Your task to perform on an android device: delete browsing data in the chrome app Image 0: 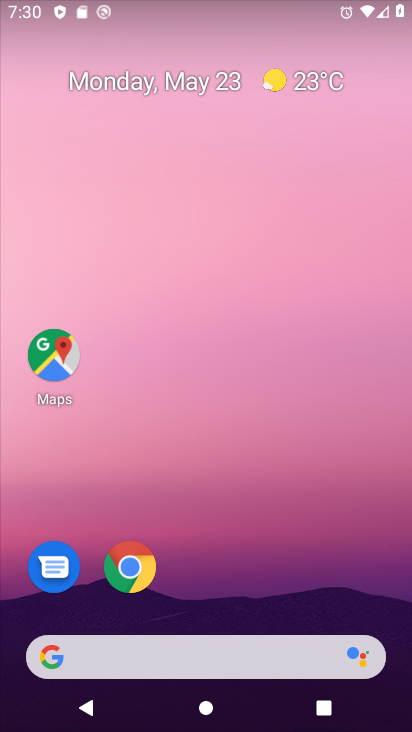
Step 0: drag from (218, 565) to (224, 282)
Your task to perform on an android device: delete browsing data in the chrome app Image 1: 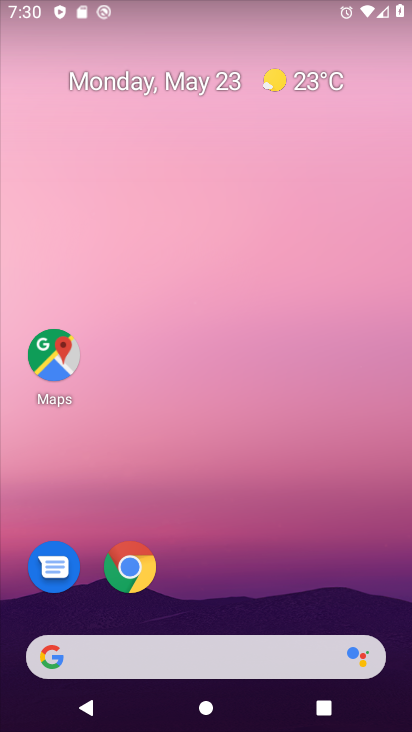
Step 1: drag from (221, 578) to (276, 155)
Your task to perform on an android device: delete browsing data in the chrome app Image 2: 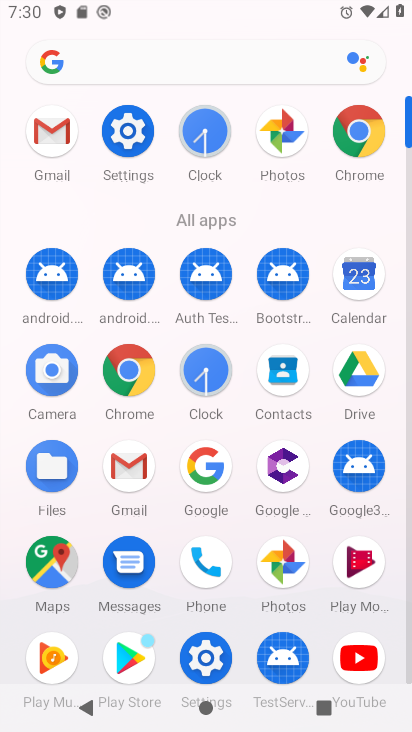
Step 2: click (337, 126)
Your task to perform on an android device: delete browsing data in the chrome app Image 3: 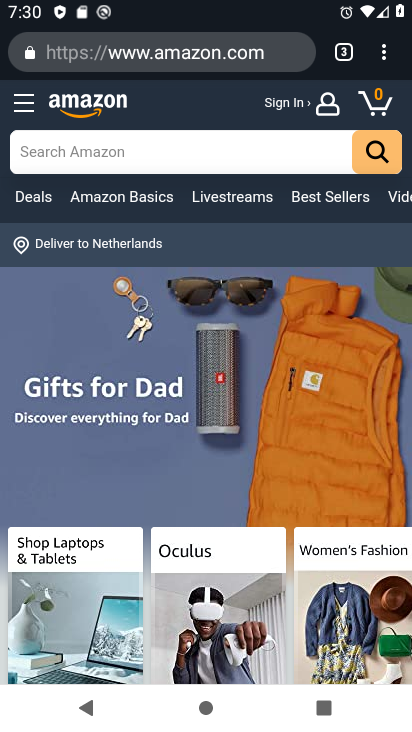
Step 3: click (380, 47)
Your task to perform on an android device: delete browsing data in the chrome app Image 4: 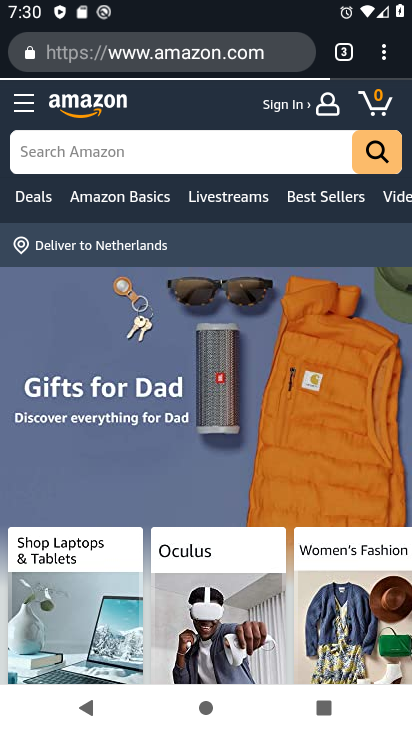
Step 4: click (391, 47)
Your task to perform on an android device: delete browsing data in the chrome app Image 5: 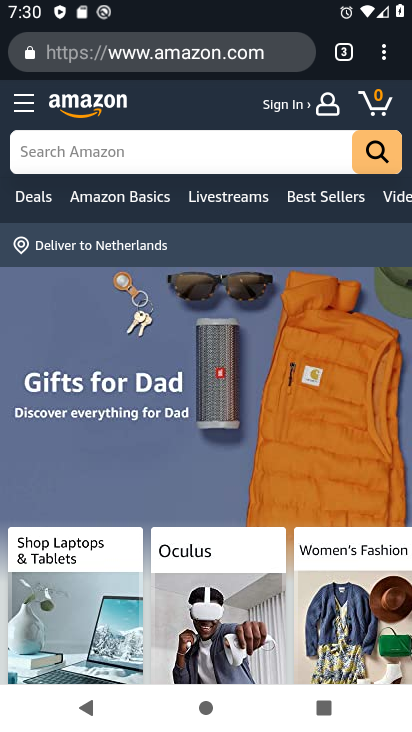
Step 5: click (389, 57)
Your task to perform on an android device: delete browsing data in the chrome app Image 6: 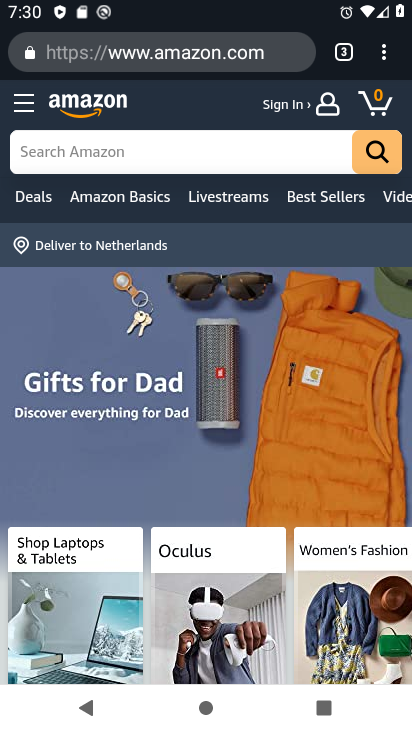
Step 6: click (389, 57)
Your task to perform on an android device: delete browsing data in the chrome app Image 7: 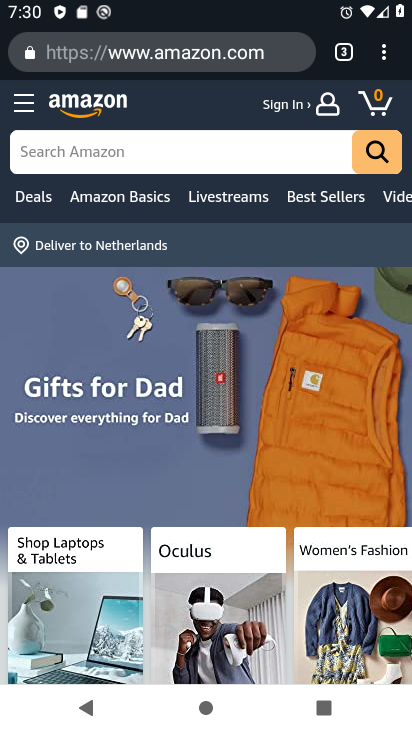
Step 7: click (382, 60)
Your task to perform on an android device: delete browsing data in the chrome app Image 8: 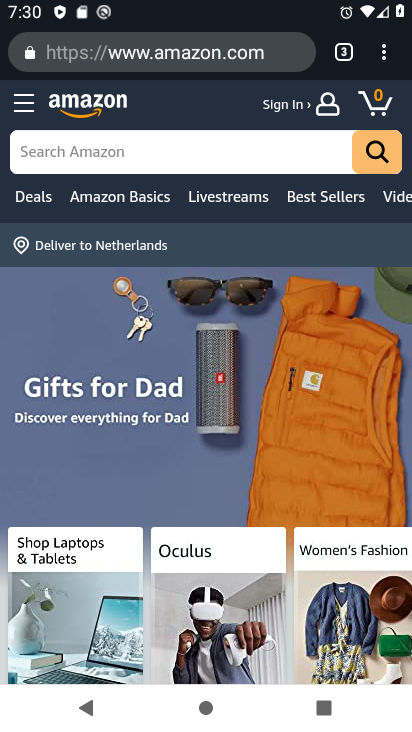
Step 8: click (382, 60)
Your task to perform on an android device: delete browsing data in the chrome app Image 9: 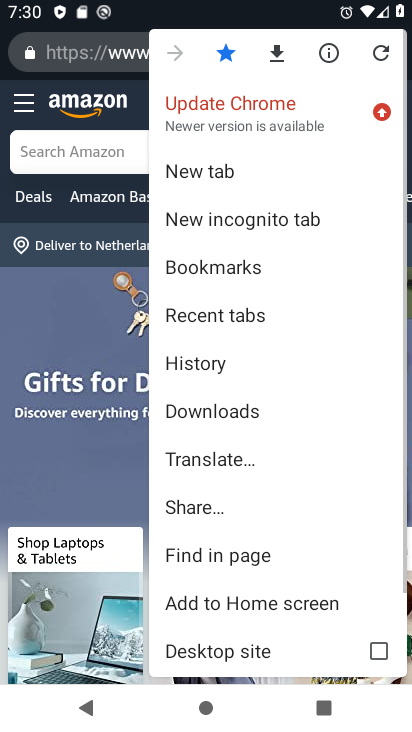
Step 9: drag from (228, 581) to (272, 331)
Your task to perform on an android device: delete browsing data in the chrome app Image 10: 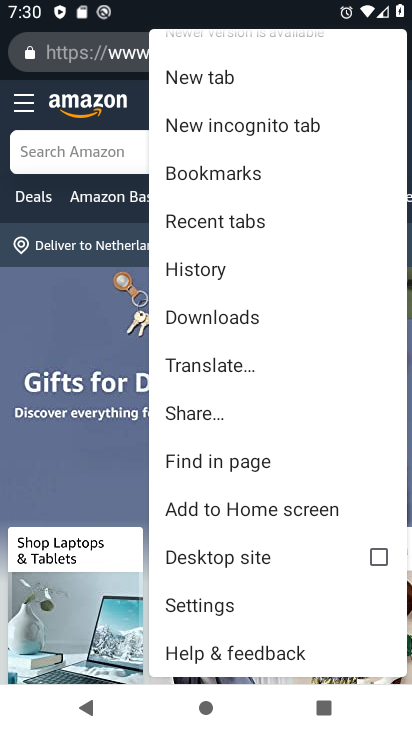
Step 10: click (224, 600)
Your task to perform on an android device: delete browsing data in the chrome app Image 11: 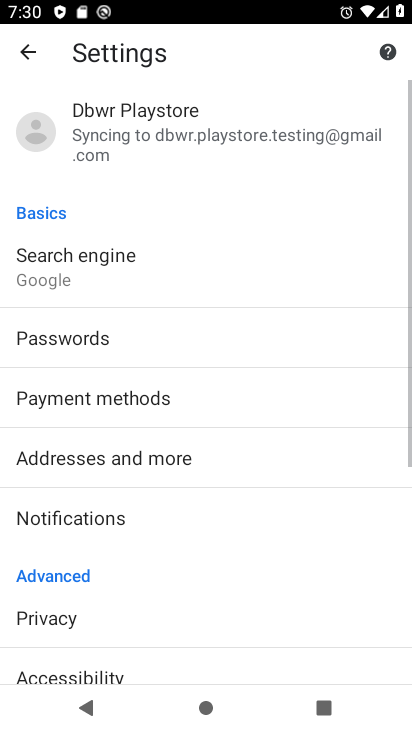
Step 11: click (44, 57)
Your task to perform on an android device: delete browsing data in the chrome app Image 12: 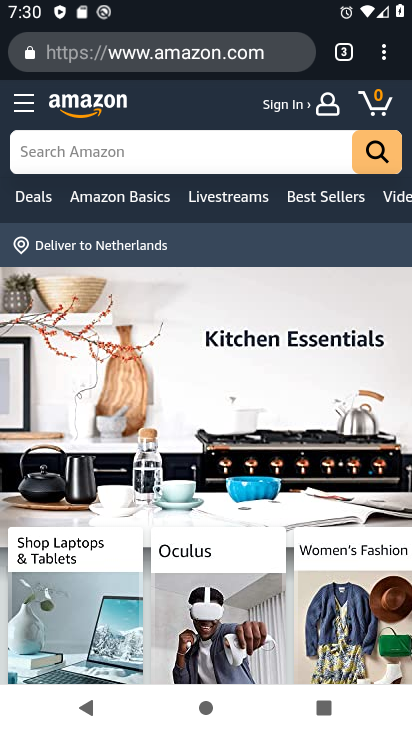
Step 12: click (386, 46)
Your task to perform on an android device: delete browsing data in the chrome app Image 13: 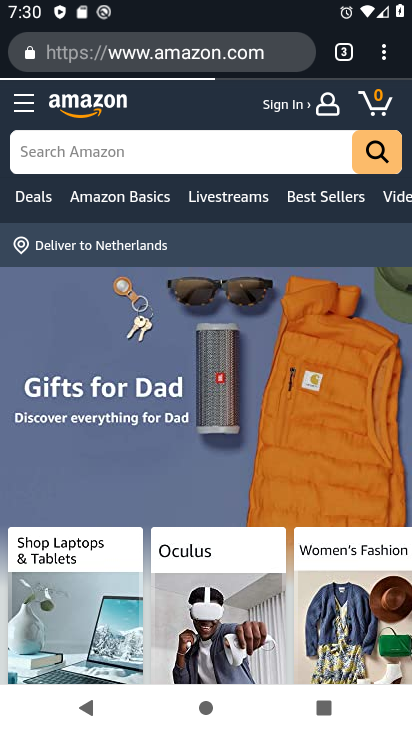
Step 13: click (381, 66)
Your task to perform on an android device: delete browsing data in the chrome app Image 14: 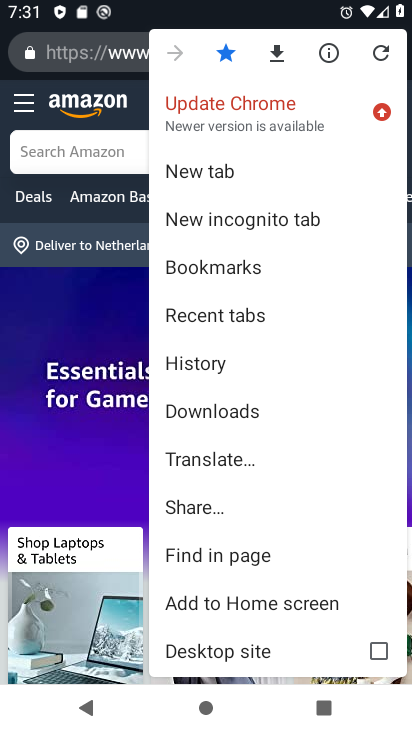
Step 14: click (227, 368)
Your task to perform on an android device: delete browsing data in the chrome app Image 15: 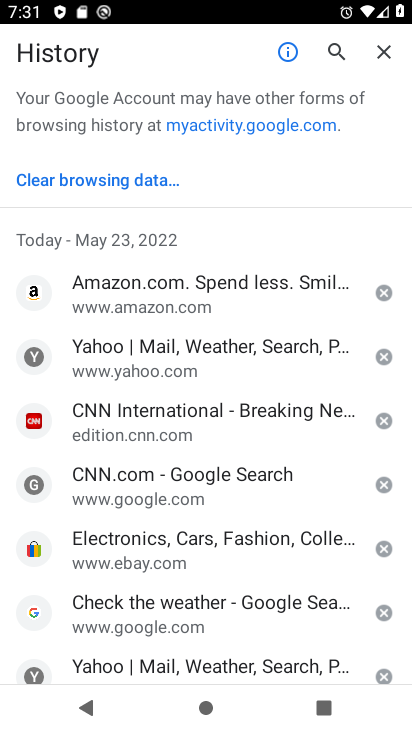
Step 15: click (94, 175)
Your task to perform on an android device: delete browsing data in the chrome app Image 16: 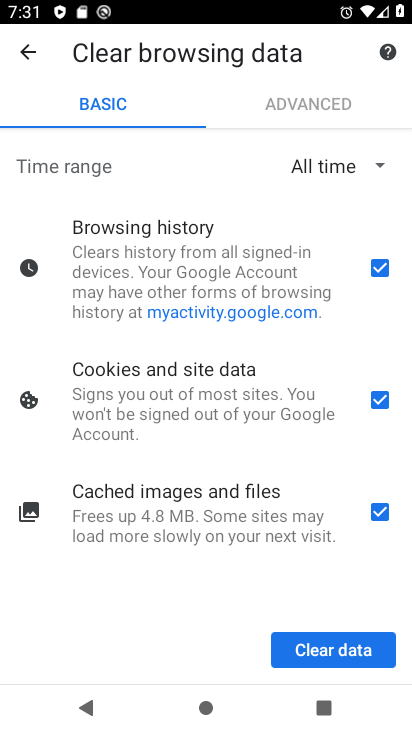
Step 16: click (296, 637)
Your task to perform on an android device: delete browsing data in the chrome app Image 17: 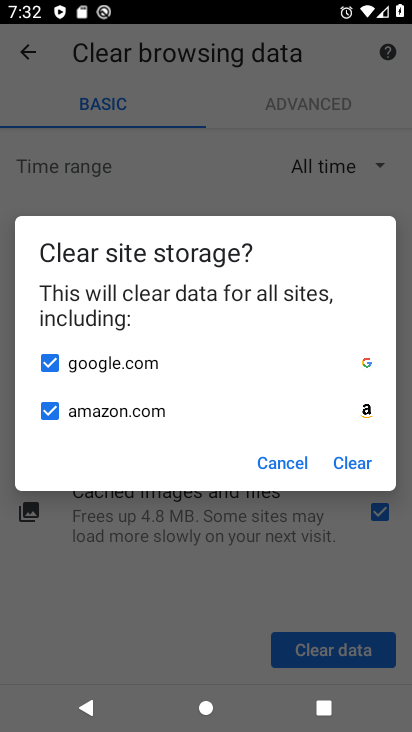
Step 17: click (334, 465)
Your task to perform on an android device: delete browsing data in the chrome app Image 18: 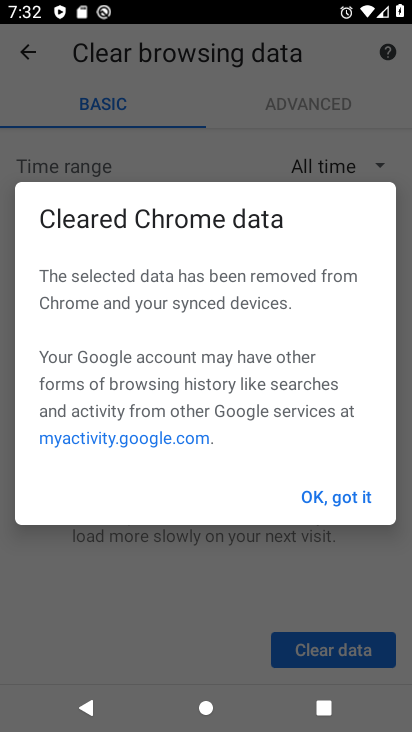
Step 18: click (328, 496)
Your task to perform on an android device: delete browsing data in the chrome app Image 19: 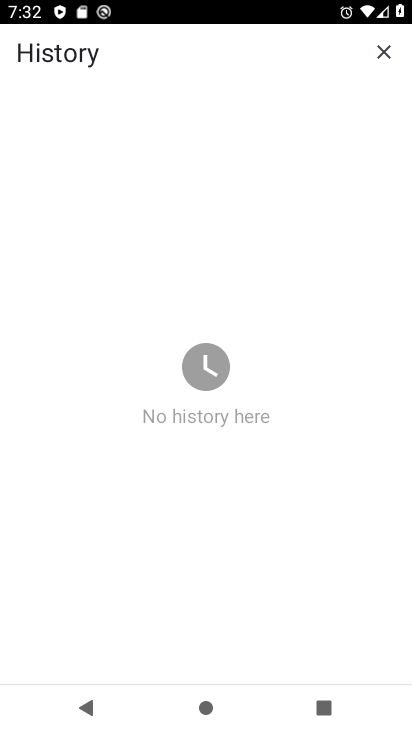
Step 19: task complete